Your task to perform on an android device: Find coffee shops on Maps Image 0: 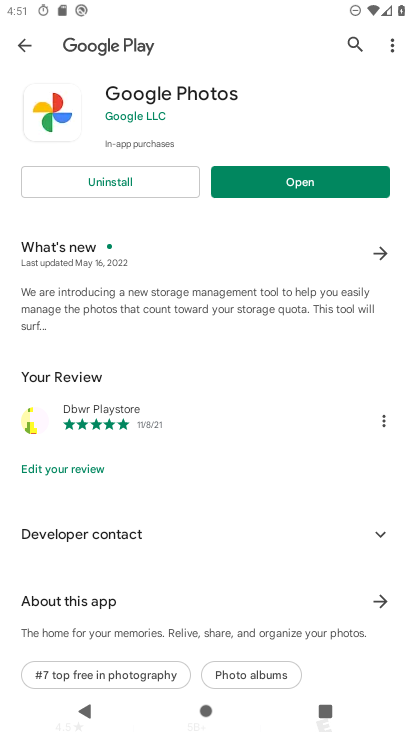
Step 0: press home button
Your task to perform on an android device: Find coffee shops on Maps Image 1: 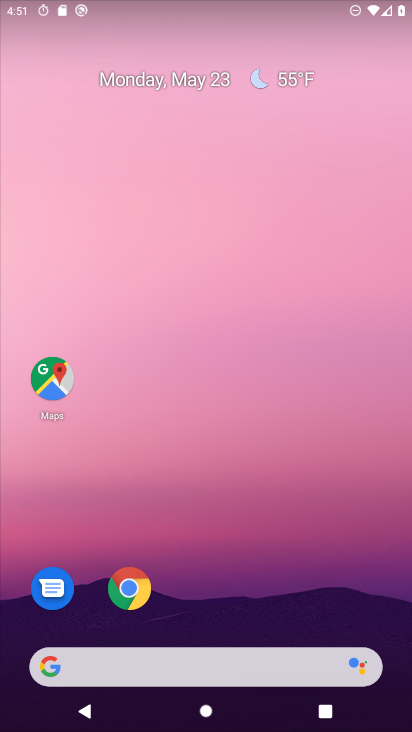
Step 1: click (54, 384)
Your task to perform on an android device: Find coffee shops on Maps Image 2: 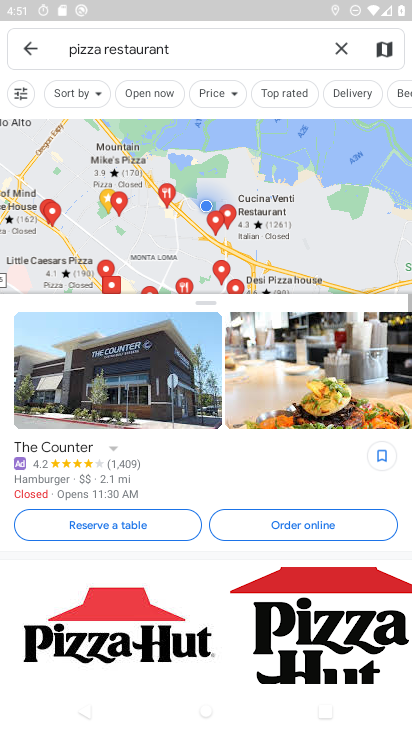
Step 2: click (333, 53)
Your task to perform on an android device: Find coffee shops on Maps Image 3: 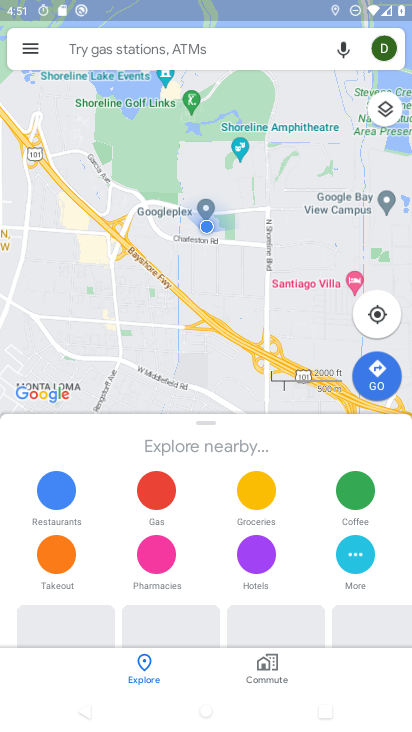
Step 3: click (192, 46)
Your task to perform on an android device: Find coffee shops on Maps Image 4: 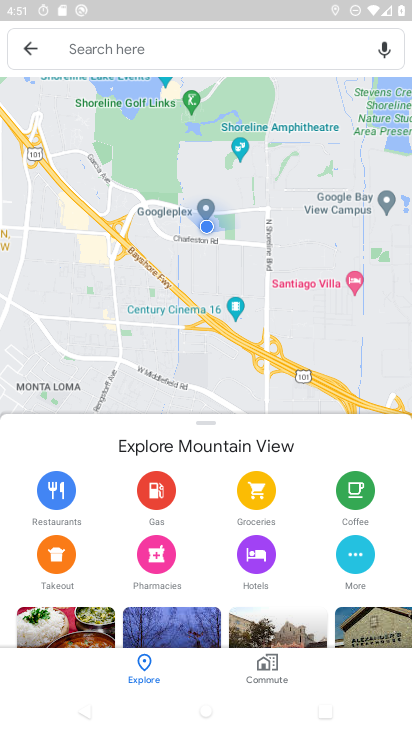
Step 4: click (153, 50)
Your task to perform on an android device: Find coffee shops on Maps Image 5: 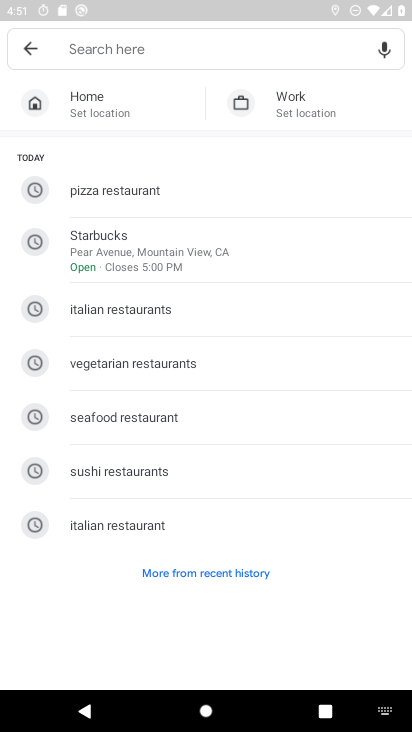
Step 5: type "coffee"
Your task to perform on an android device: Find coffee shops on Maps Image 6: 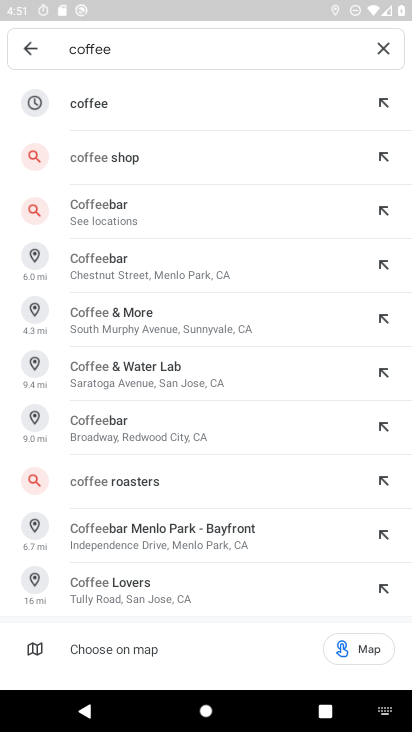
Step 6: click (99, 101)
Your task to perform on an android device: Find coffee shops on Maps Image 7: 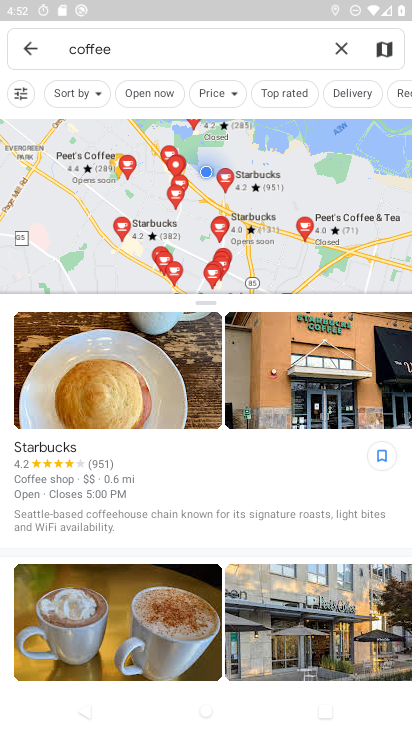
Step 7: task complete